Your task to perform on an android device: all mails in gmail Image 0: 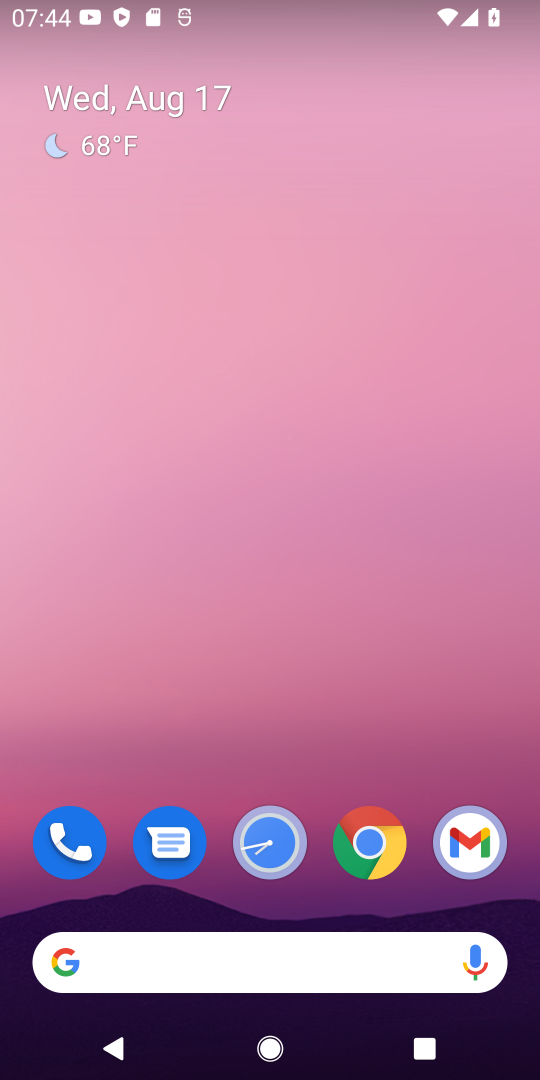
Step 0: click (467, 840)
Your task to perform on an android device: all mails in gmail Image 1: 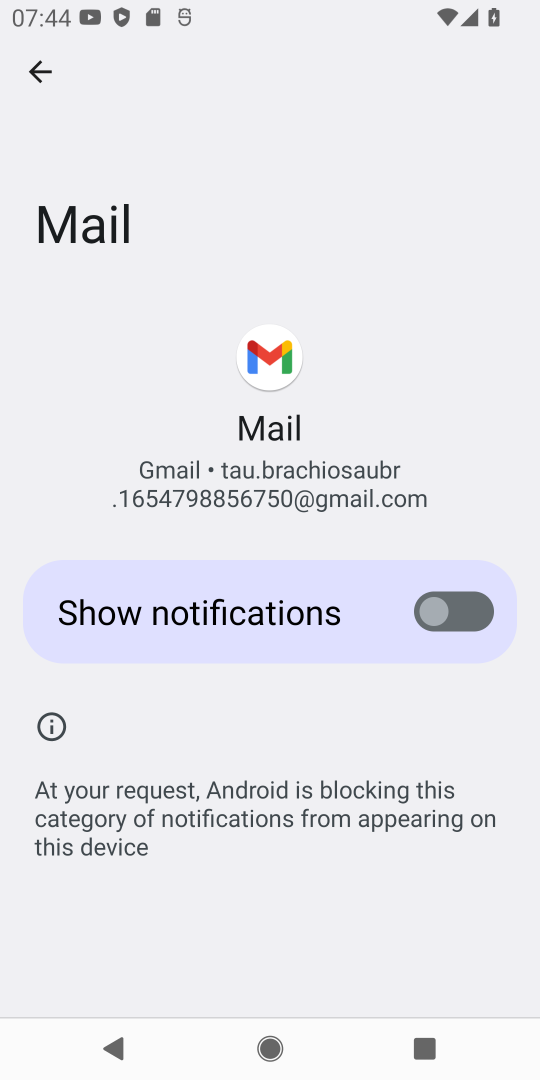
Step 1: click (43, 68)
Your task to perform on an android device: all mails in gmail Image 2: 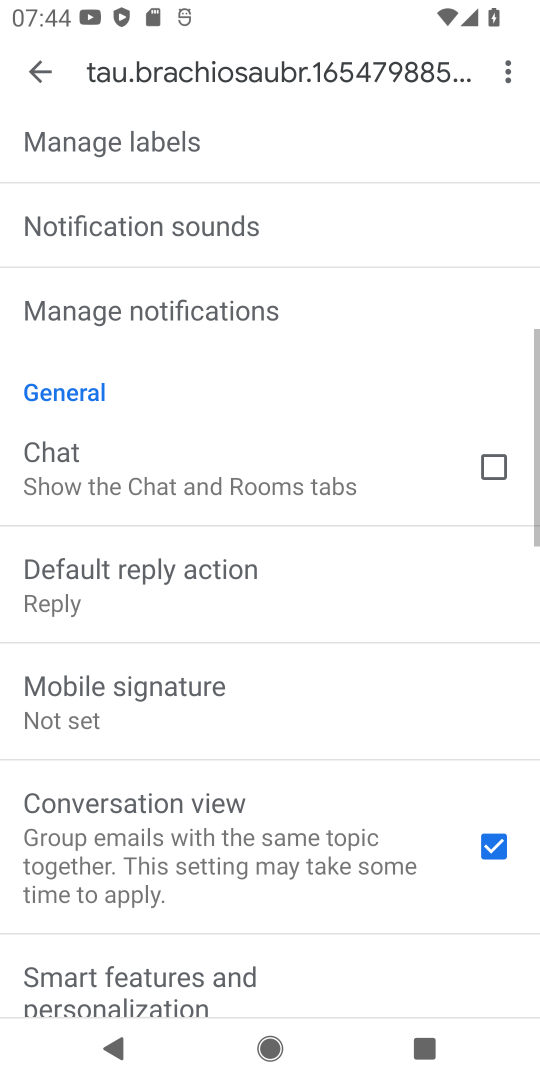
Step 2: click (43, 64)
Your task to perform on an android device: all mails in gmail Image 3: 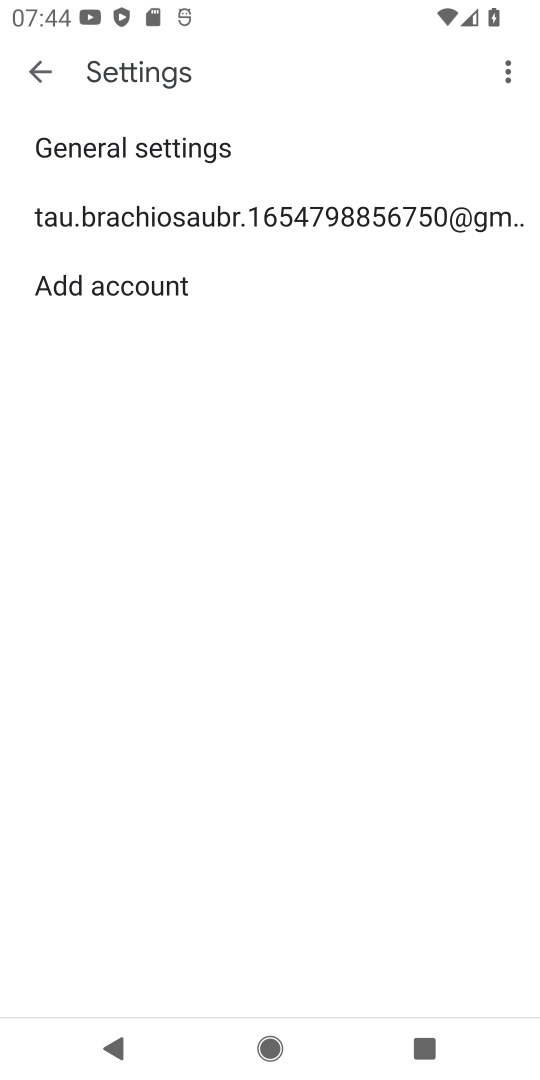
Step 3: click (39, 68)
Your task to perform on an android device: all mails in gmail Image 4: 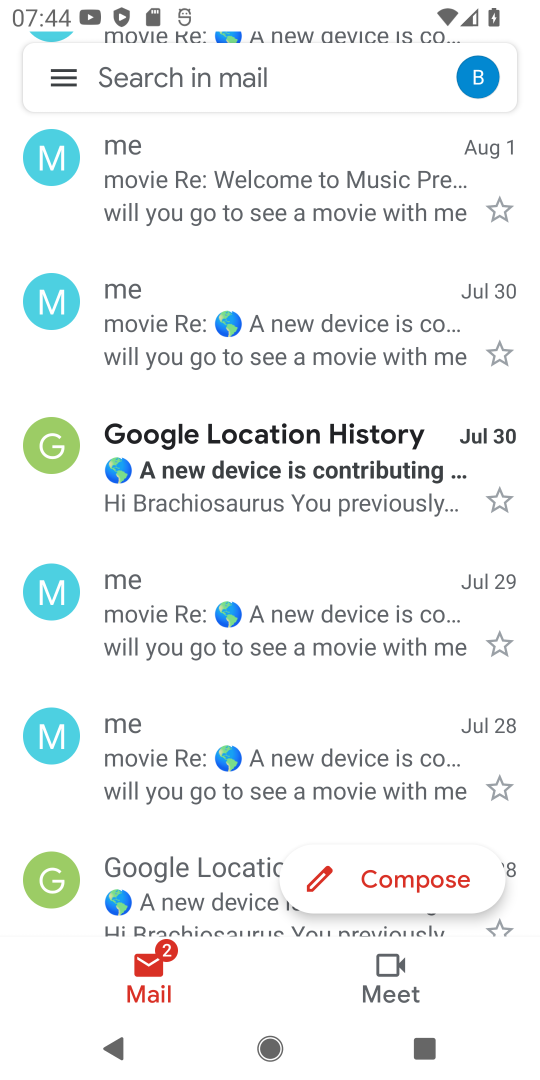
Step 4: drag from (239, 307) to (317, 889)
Your task to perform on an android device: all mails in gmail Image 5: 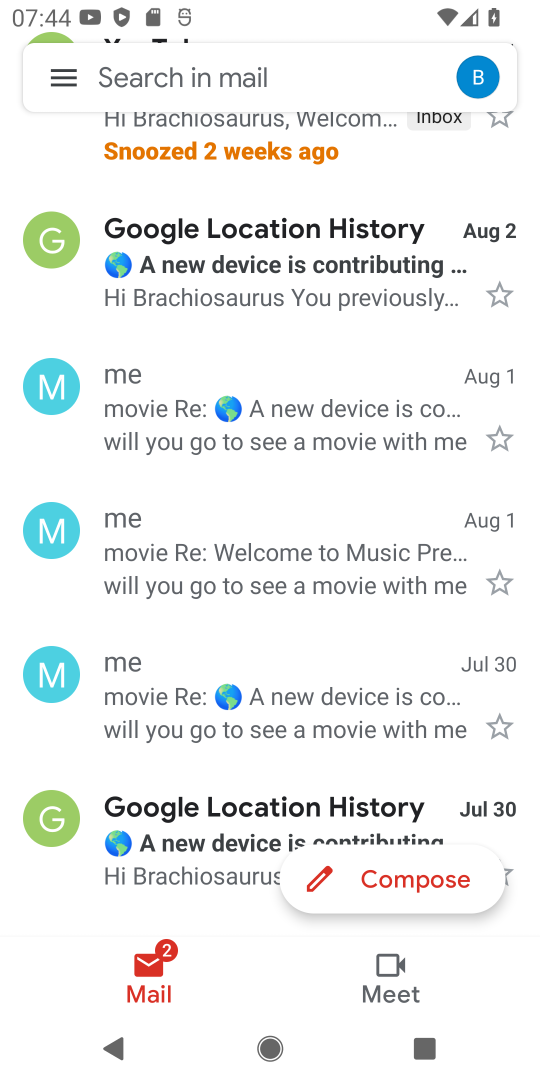
Step 5: click (59, 76)
Your task to perform on an android device: all mails in gmail Image 6: 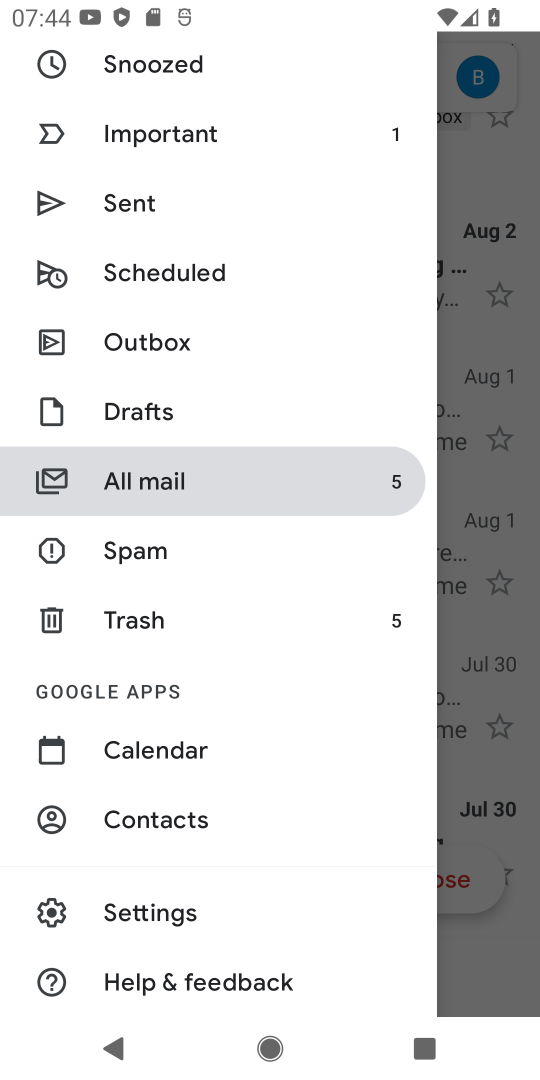
Step 6: click (201, 492)
Your task to perform on an android device: all mails in gmail Image 7: 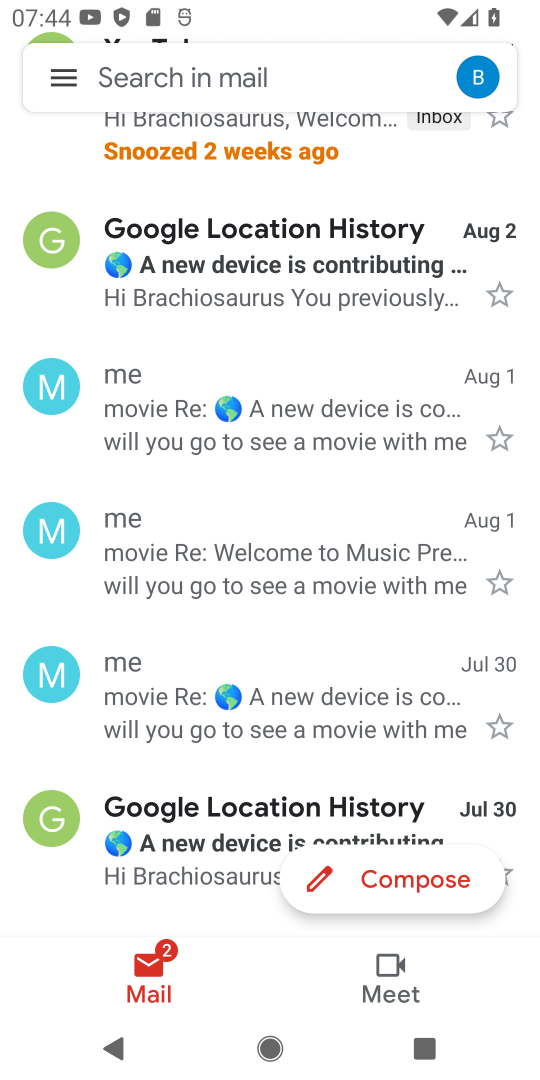
Step 7: task complete